Your task to perform on an android device: Open network settings Image 0: 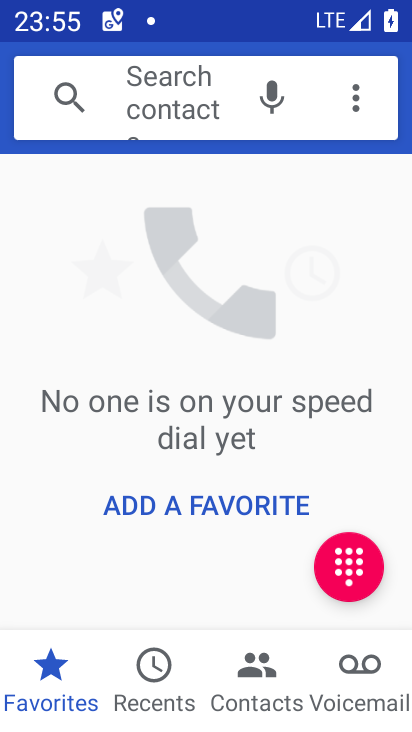
Step 0: press back button
Your task to perform on an android device: Open network settings Image 1: 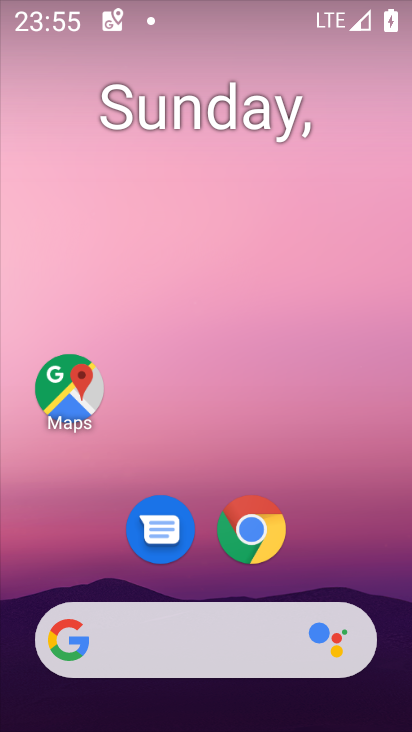
Step 1: drag from (305, 575) to (285, 138)
Your task to perform on an android device: Open network settings Image 2: 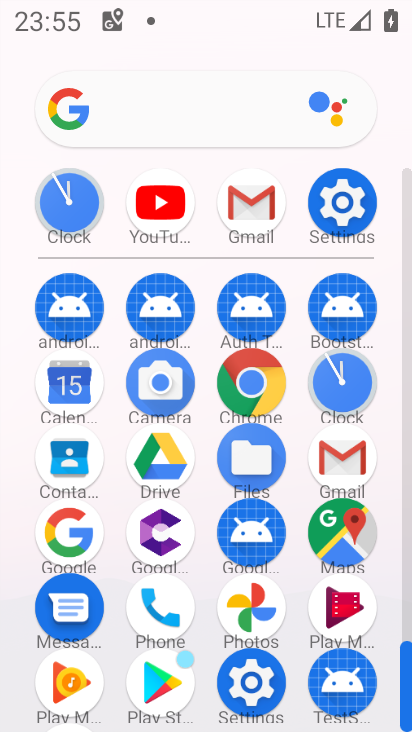
Step 2: click (342, 199)
Your task to perform on an android device: Open network settings Image 3: 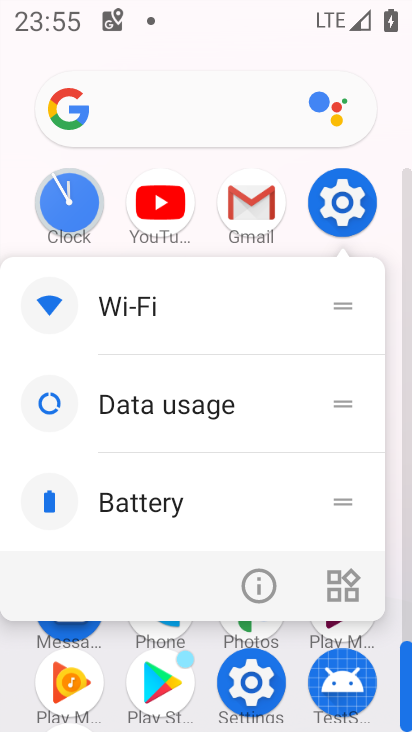
Step 3: click (342, 199)
Your task to perform on an android device: Open network settings Image 4: 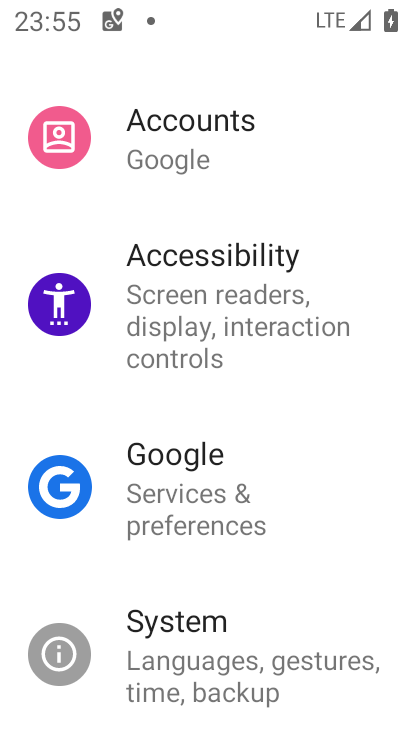
Step 4: drag from (280, 214) to (295, 442)
Your task to perform on an android device: Open network settings Image 5: 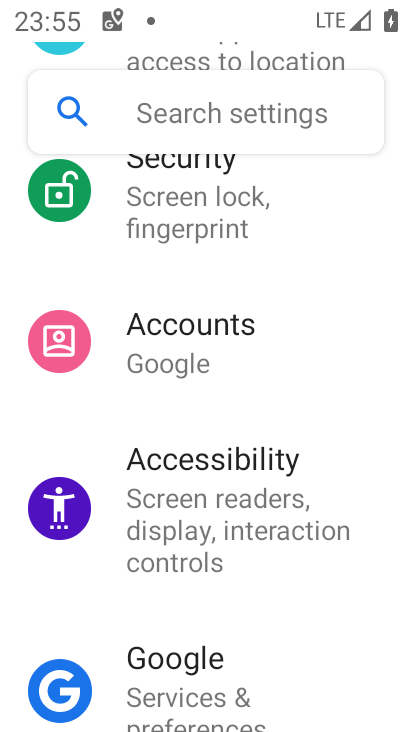
Step 5: drag from (290, 288) to (284, 465)
Your task to perform on an android device: Open network settings Image 6: 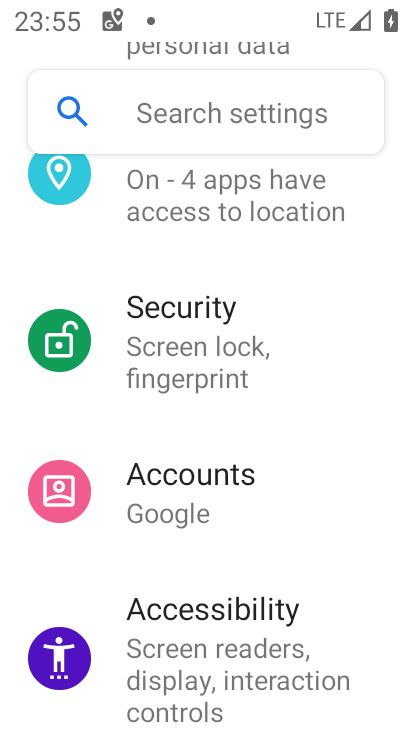
Step 6: drag from (281, 276) to (269, 544)
Your task to perform on an android device: Open network settings Image 7: 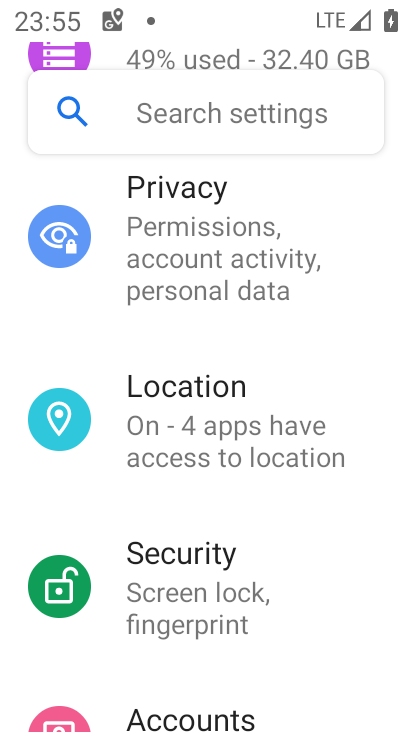
Step 7: drag from (257, 320) to (264, 511)
Your task to perform on an android device: Open network settings Image 8: 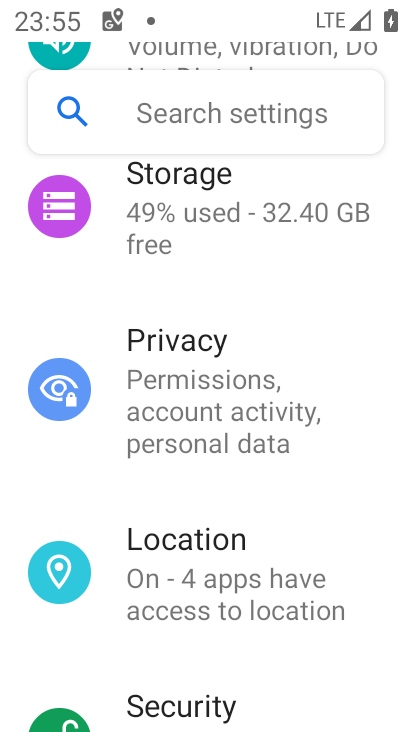
Step 8: drag from (287, 243) to (281, 443)
Your task to perform on an android device: Open network settings Image 9: 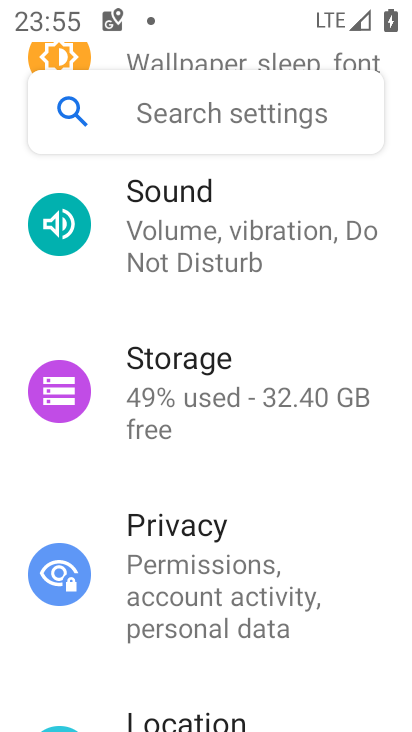
Step 9: drag from (266, 285) to (274, 539)
Your task to perform on an android device: Open network settings Image 10: 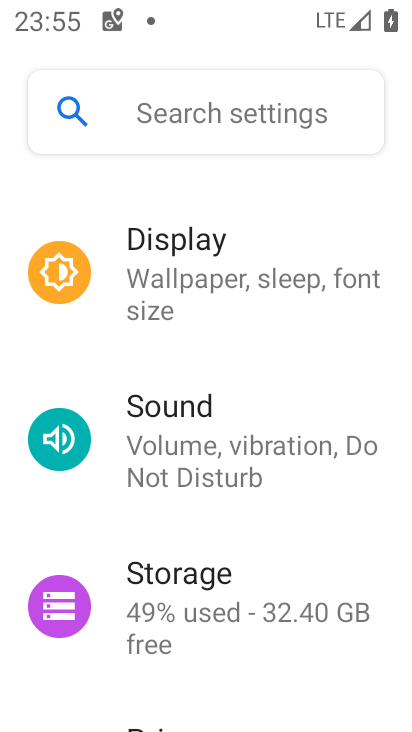
Step 10: drag from (218, 327) to (260, 538)
Your task to perform on an android device: Open network settings Image 11: 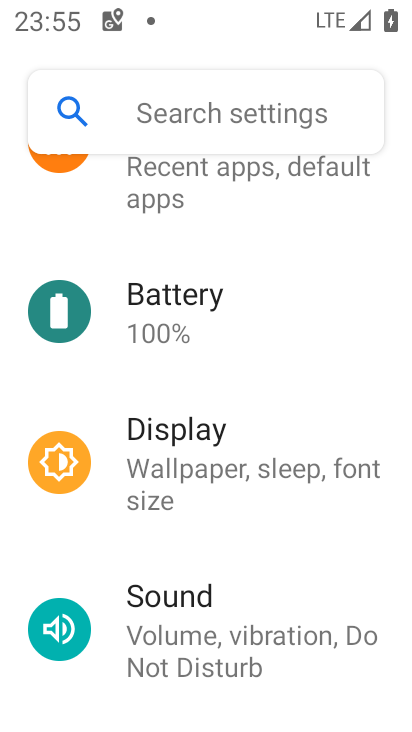
Step 11: drag from (249, 351) to (255, 555)
Your task to perform on an android device: Open network settings Image 12: 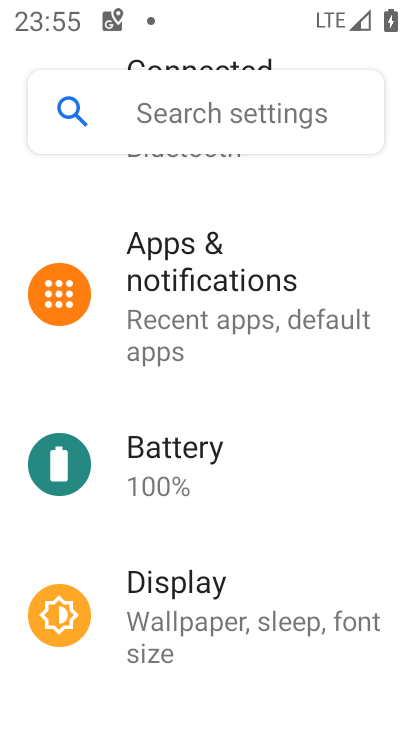
Step 12: drag from (234, 381) to (271, 554)
Your task to perform on an android device: Open network settings Image 13: 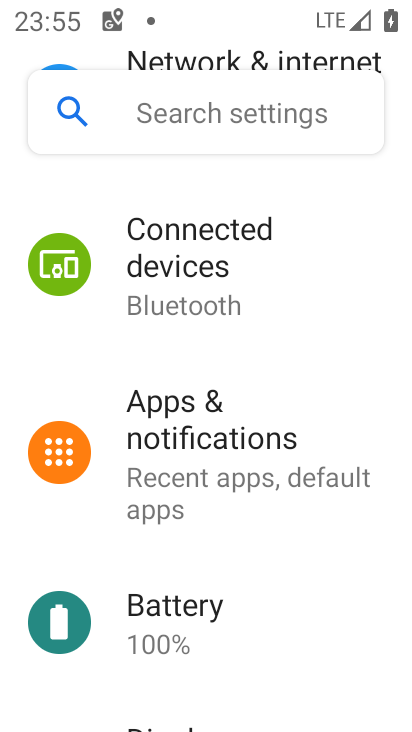
Step 13: drag from (238, 346) to (249, 498)
Your task to perform on an android device: Open network settings Image 14: 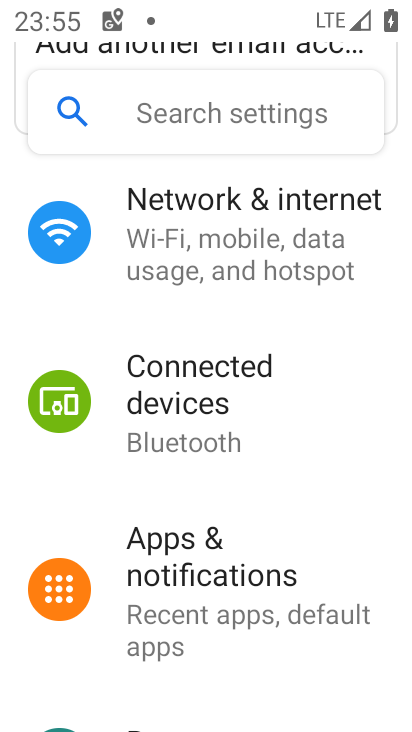
Step 14: drag from (219, 311) to (269, 475)
Your task to perform on an android device: Open network settings Image 15: 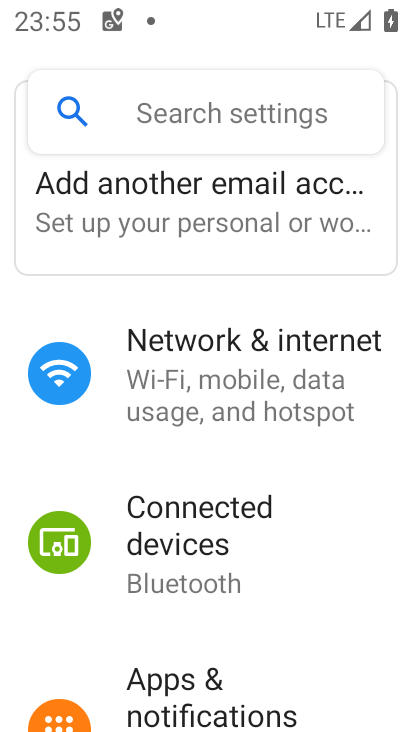
Step 15: click (247, 344)
Your task to perform on an android device: Open network settings Image 16: 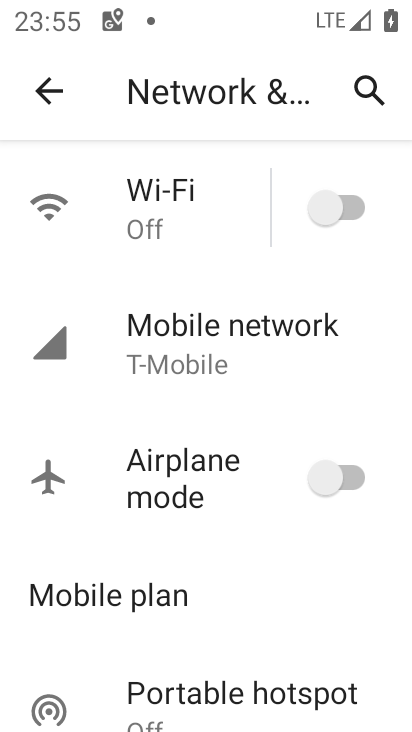
Step 16: click (242, 343)
Your task to perform on an android device: Open network settings Image 17: 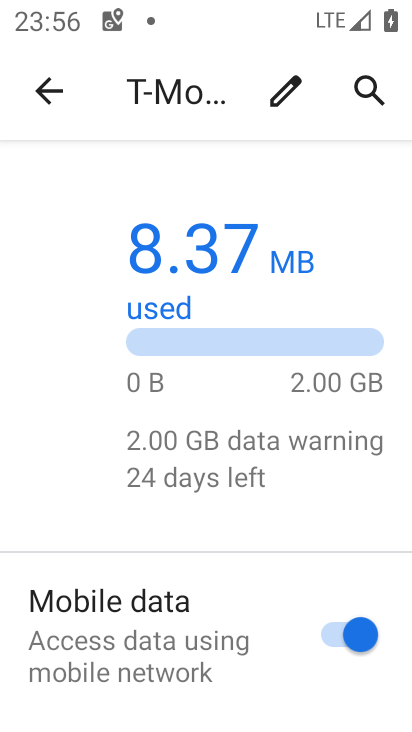
Step 17: task complete